Your task to perform on an android device: Go to location settings Image 0: 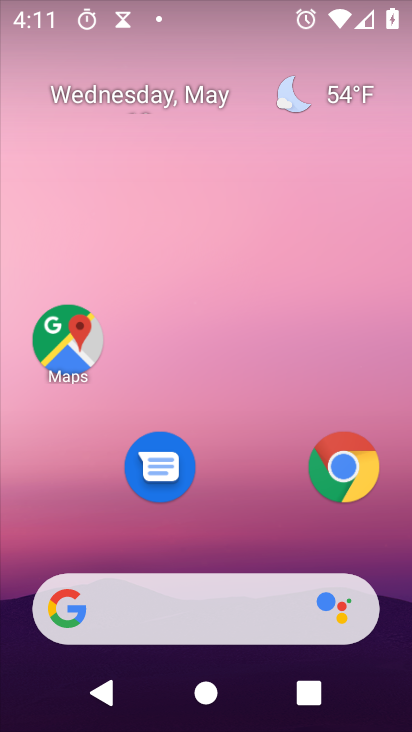
Step 0: drag from (288, 532) to (274, 117)
Your task to perform on an android device: Go to location settings Image 1: 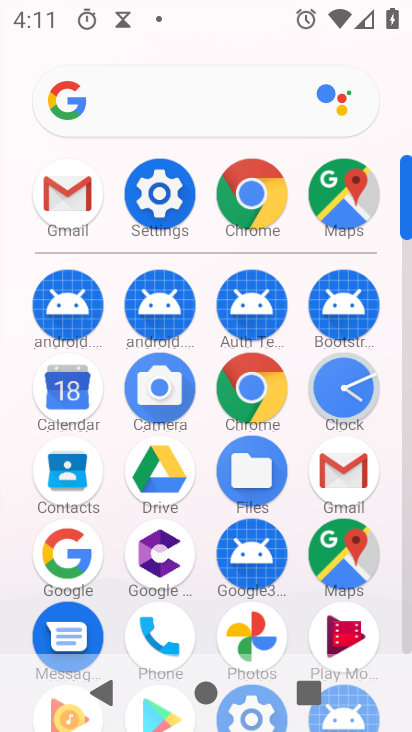
Step 1: click (166, 199)
Your task to perform on an android device: Go to location settings Image 2: 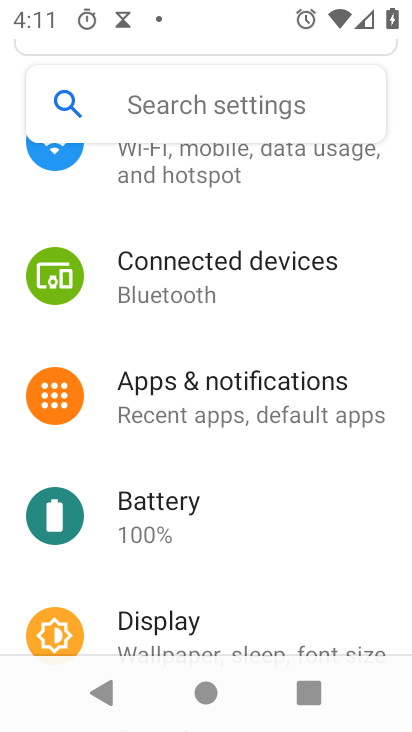
Step 2: drag from (262, 645) to (199, 213)
Your task to perform on an android device: Go to location settings Image 3: 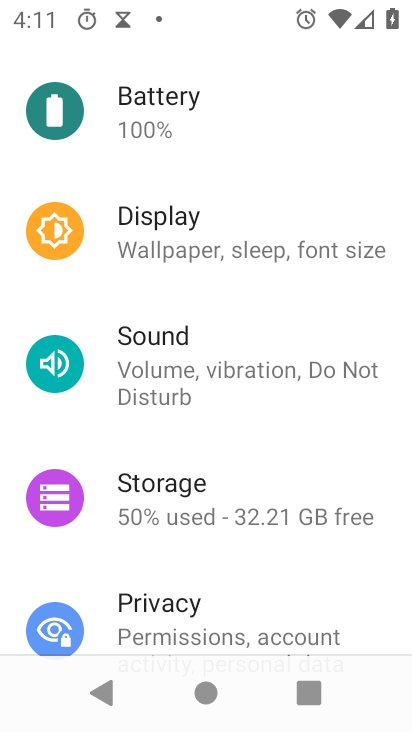
Step 3: drag from (319, 574) to (258, 138)
Your task to perform on an android device: Go to location settings Image 4: 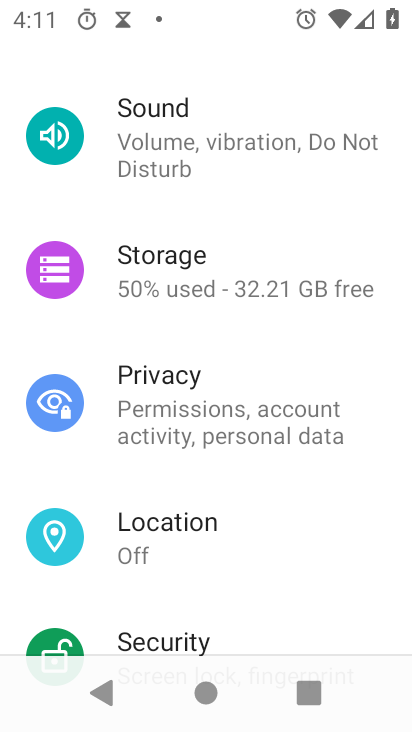
Step 4: click (276, 505)
Your task to perform on an android device: Go to location settings Image 5: 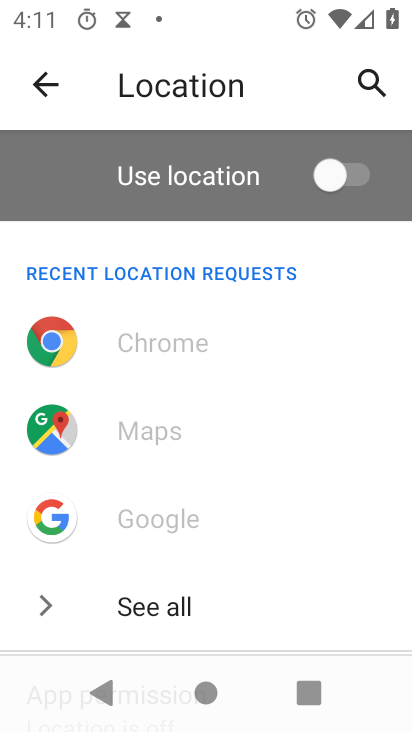
Step 5: task complete